Your task to perform on an android device: Go to sound settings Image 0: 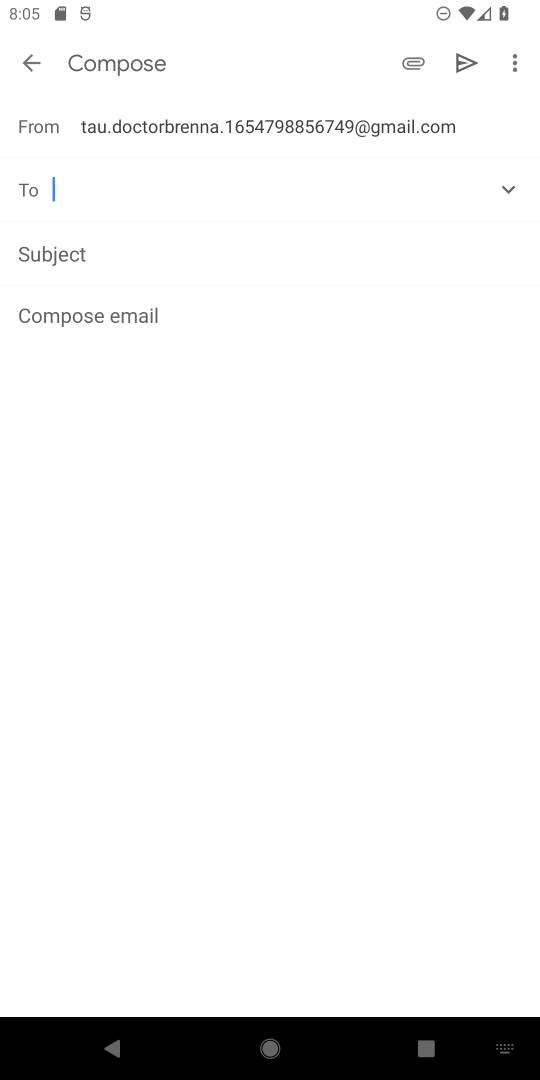
Step 0: press home button
Your task to perform on an android device: Go to sound settings Image 1: 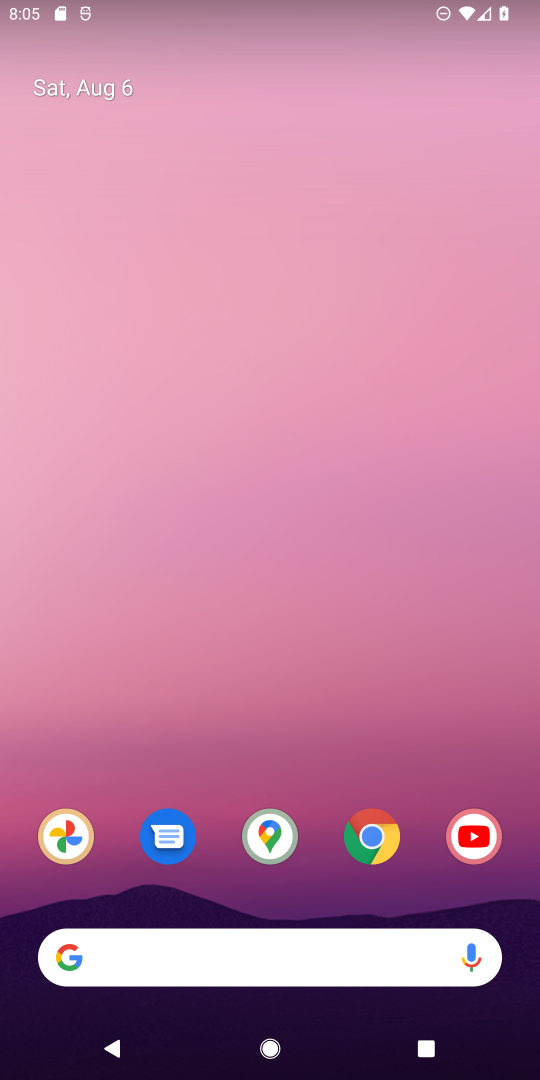
Step 1: drag from (260, 929) to (302, 512)
Your task to perform on an android device: Go to sound settings Image 2: 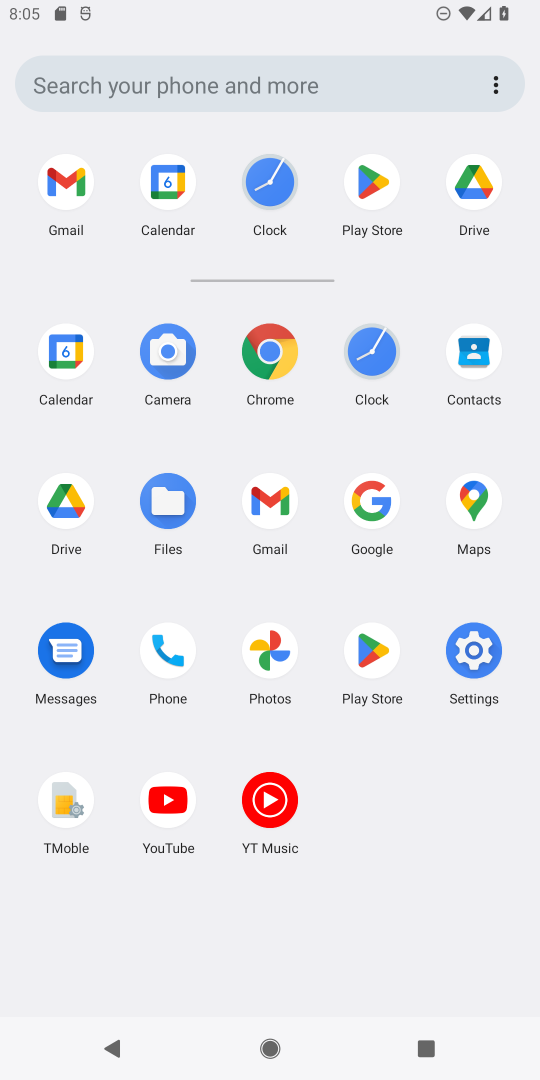
Step 2: click (458, 662)
Your task to perform on an android device: Go to sound settings Image 3: 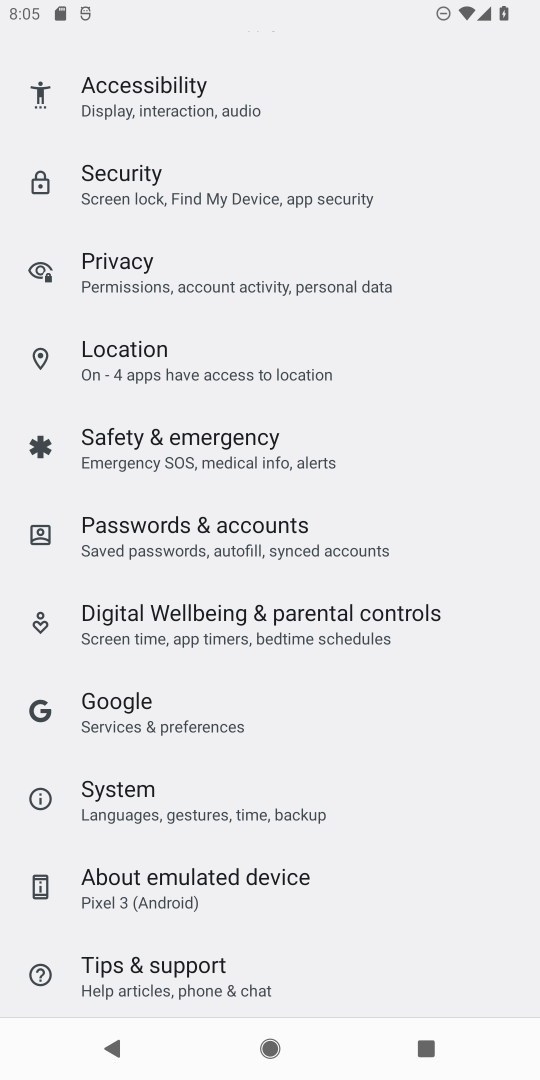
Step 3: drag from (111, 933) to (102, 446)
Your task to perform on an android device: Go to sound settings Image 4: 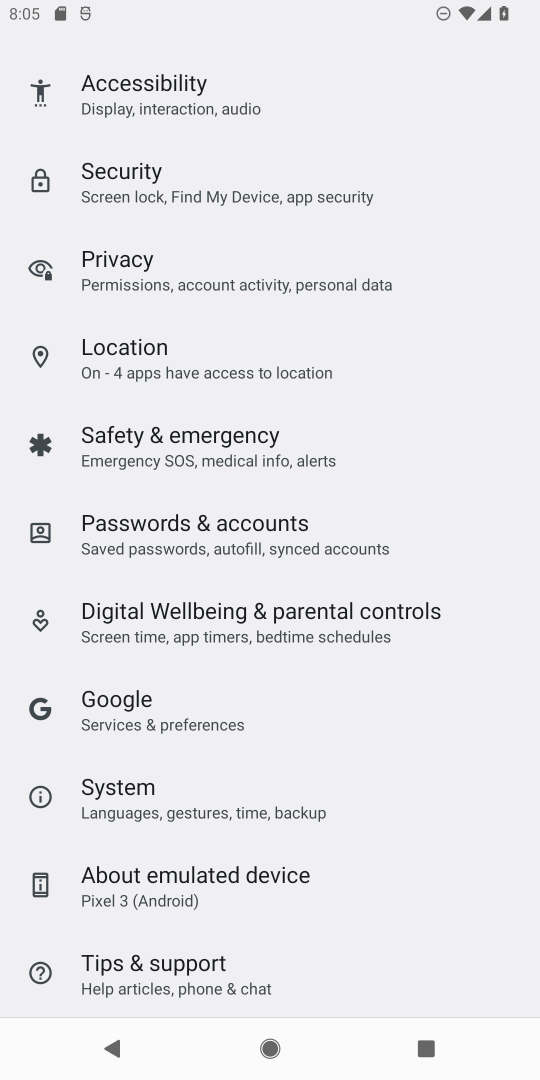
Step 4: drag from (120, 343) to (116, 767)
Your task to perform on an android device: Go to sound settings Image 5: 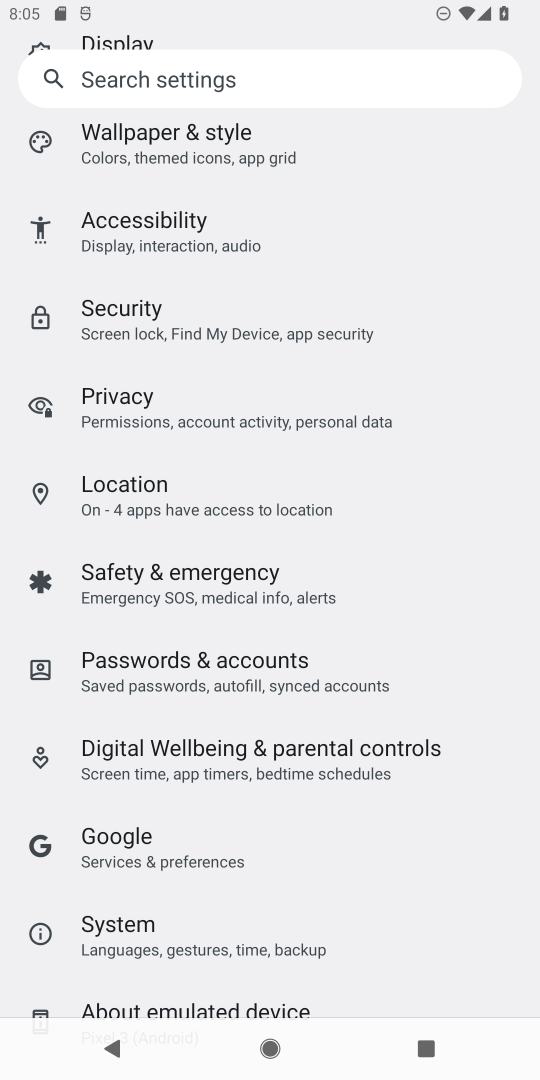
Step 5: drag from (149, 138) to (143, 689)
Your task to perform on an android device: Go to sound settings Image 6: 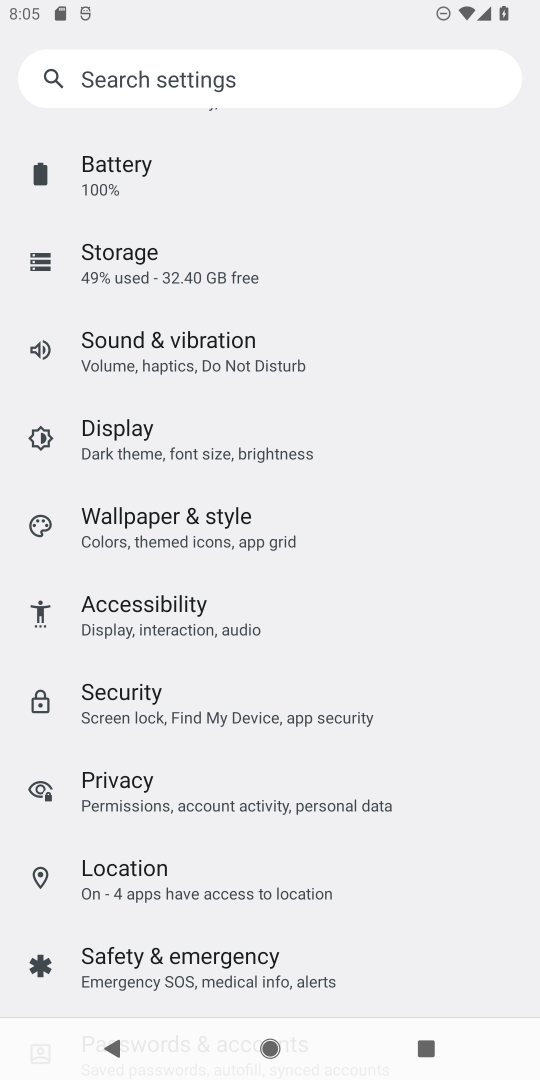
Step 6: click (139, 355)
Your task to perform on an android device: Go to sound settings Image 7: 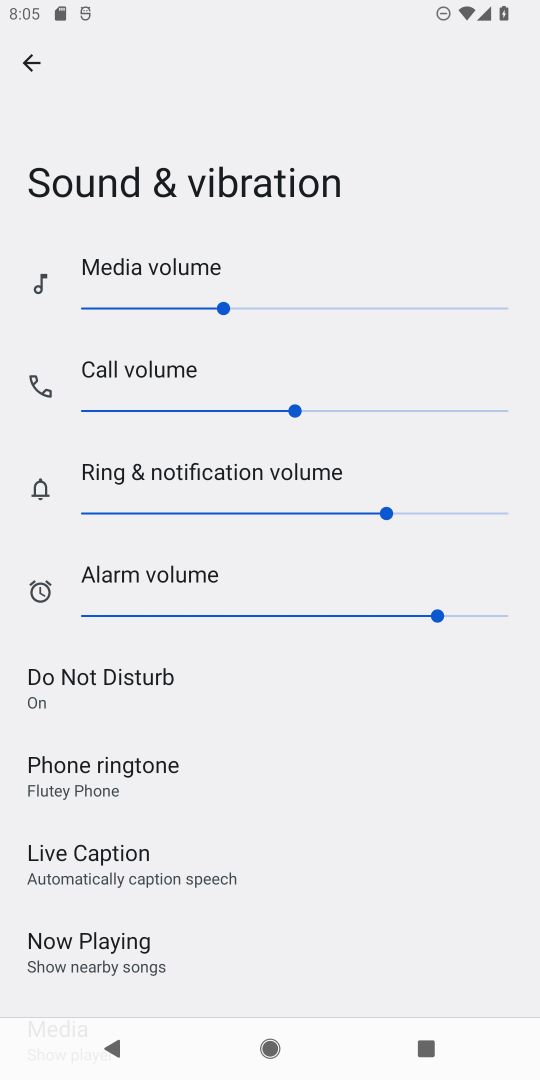
Step 7: task complete